Your task to perform on an android device: Open the calendar and show me this week's events? Image 0: 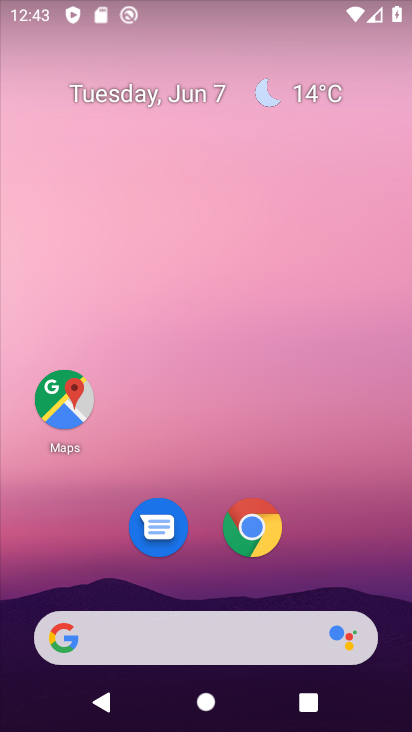
Step 0: drag from (212, 579) to (249, 61)
Your task to perform on an android device: Open the calendar and show me this week's events? Image 1: 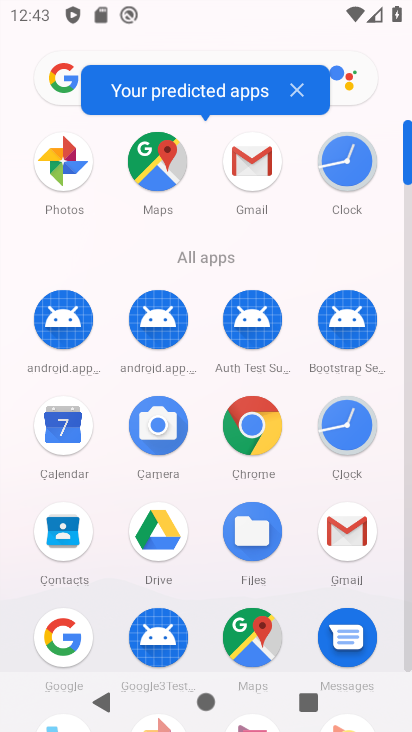
Step 1: click (71, 424)
Your task to perform on an android device: Open the calendar and show me this week's events? Image 2: 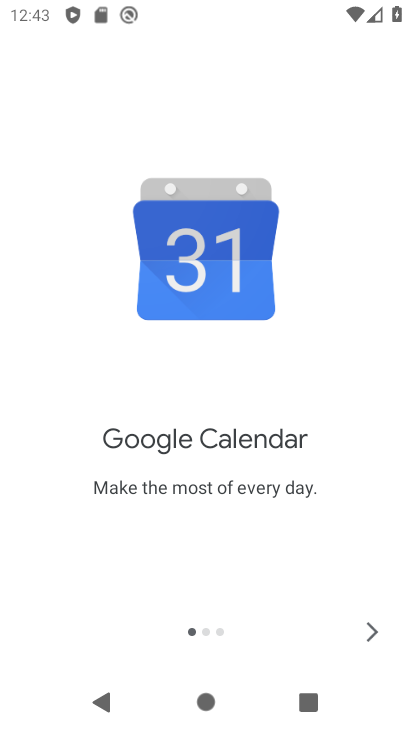
Step 2: click (379, 629)
Your task to perform on an android device: Open the calendar and show me this week's events? Image 3: 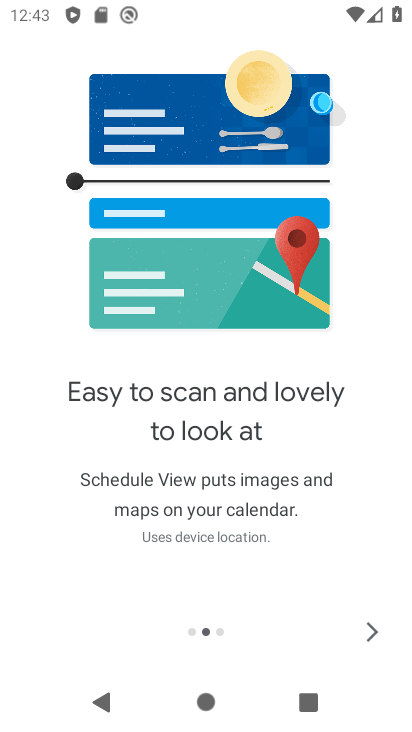
Step 3: click (371, 625)
Your task to perform on an android device: Open the calendar and show me this week's events? Image 4: 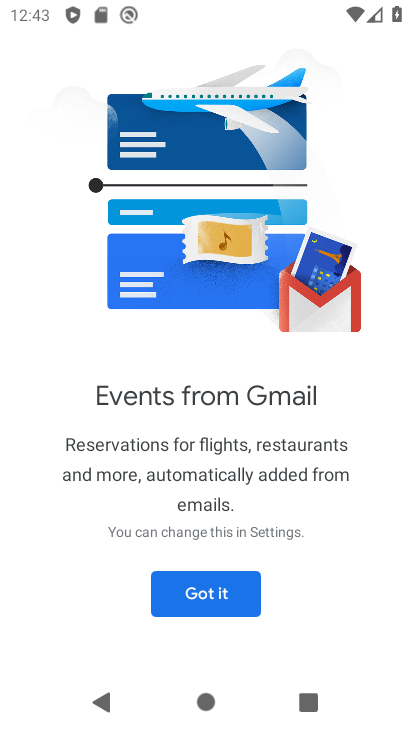
Step 4: click (187, 589)
Your task to perform on an android device: Open the calendar and show me this week's events? Image 5: 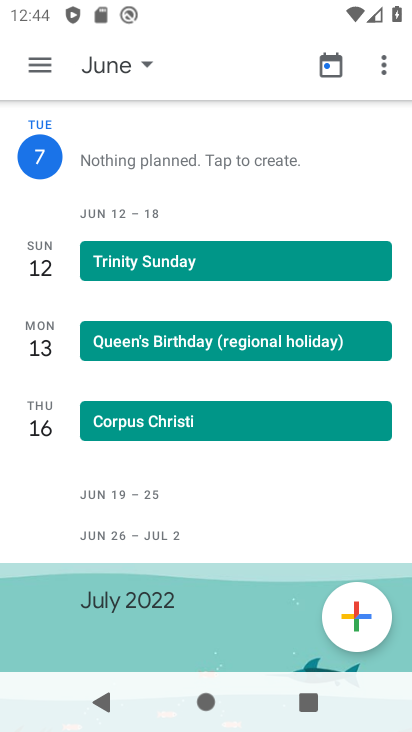
Step 5: drag from (183, 222) to (141, 509)
Your task to perform on an android device: Open the calendar and show me this week's events? Image 6: 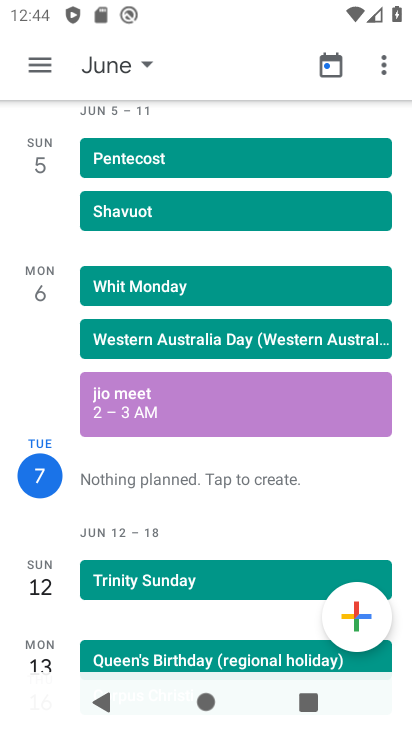
Step 6: click (37, 69)
Your task to perform on an android device: Open the calendar and show me this week's events? Image 7: 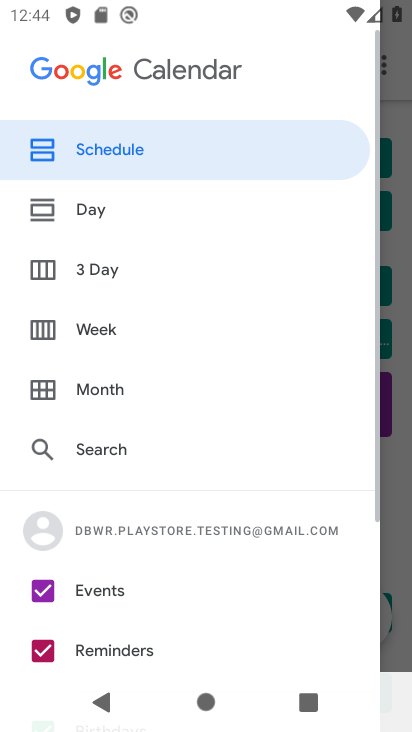
Step 7: click (109, 136)
Your task to perform on an android device: Open the calendar and show me this week's events? Image 8: 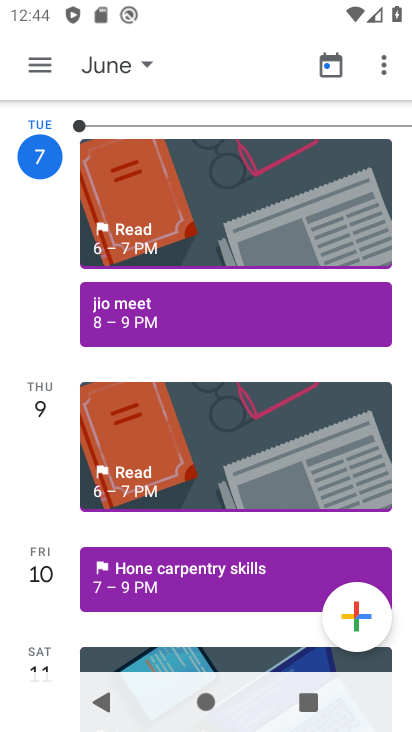
Step 8: task complete